Your task to perform on an android device: Go to Amazon Image 0: 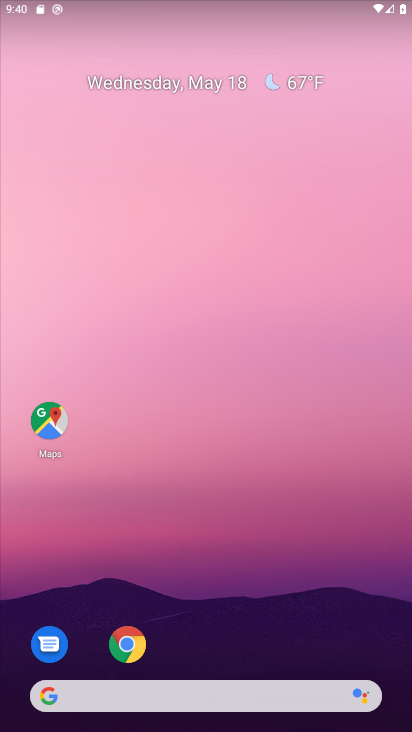
Step 0: click (127, 644)
Your task to perform on an android device: Go to Amazon Image 1: 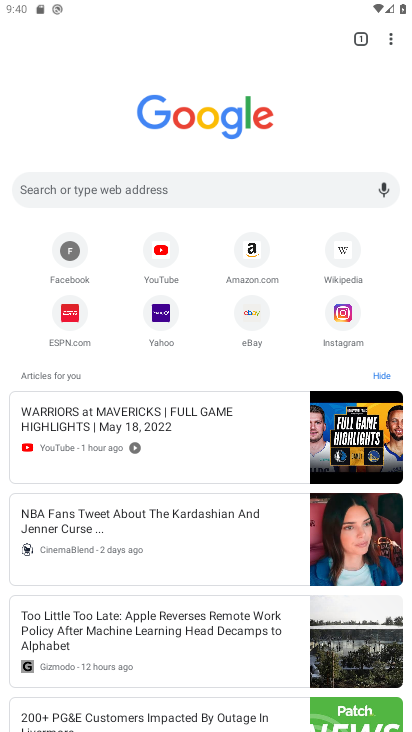
Step 1: click (196, 186)
Your task to perform on an android device: Go to Amazon Image 2: 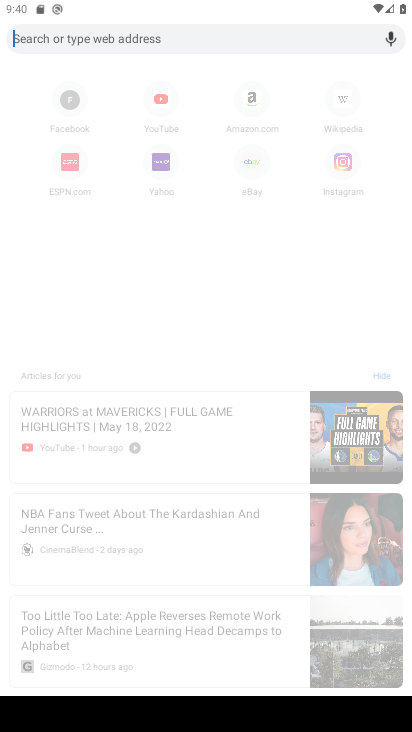
Step 2: type "Amazon"
Your task to perform on an android device: Go to Amazon Image 3: 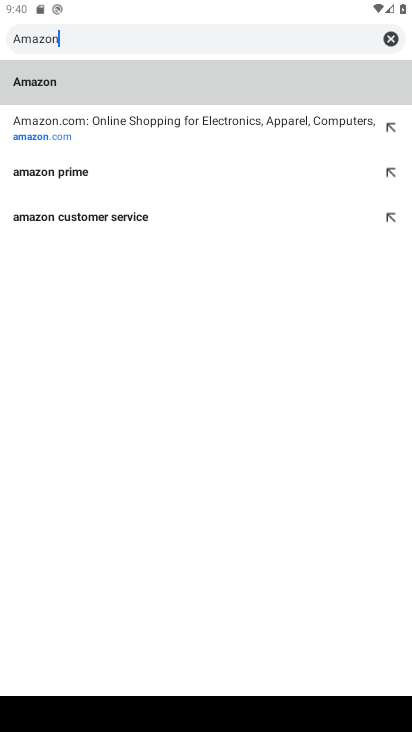
Step 3: click (145, 87)
Your task to perform on an android device: Go to Amazon Image 4: 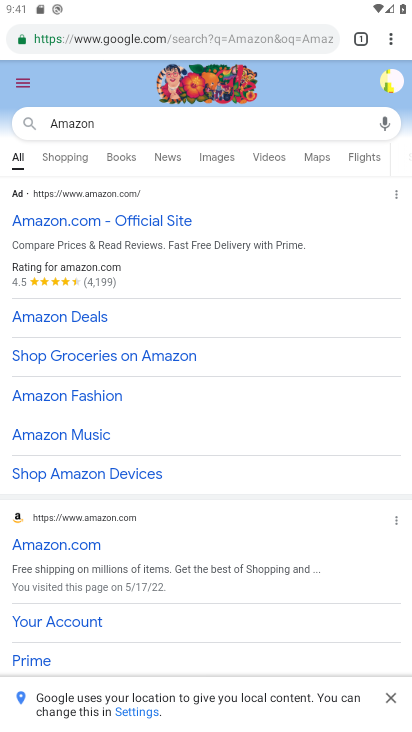
Step 4: click (114, 225)
Your task to perform on an android device: Go to Amazon Image 5: 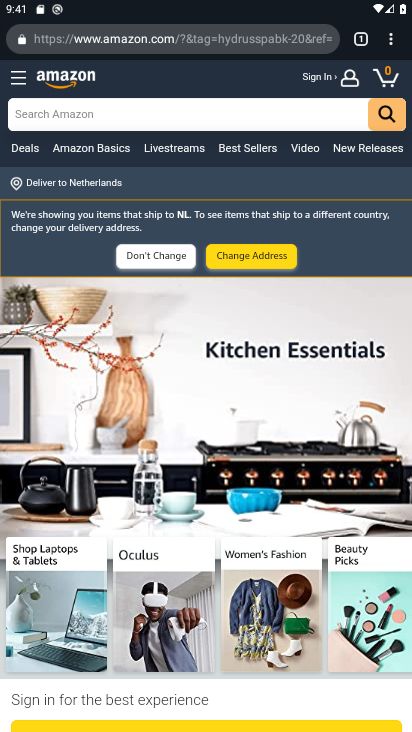
Step 5: task complete